Your task to perform on an android device: open app "Mercado Libre" (install if not already installed), go to login, and select forgot password Image 0: 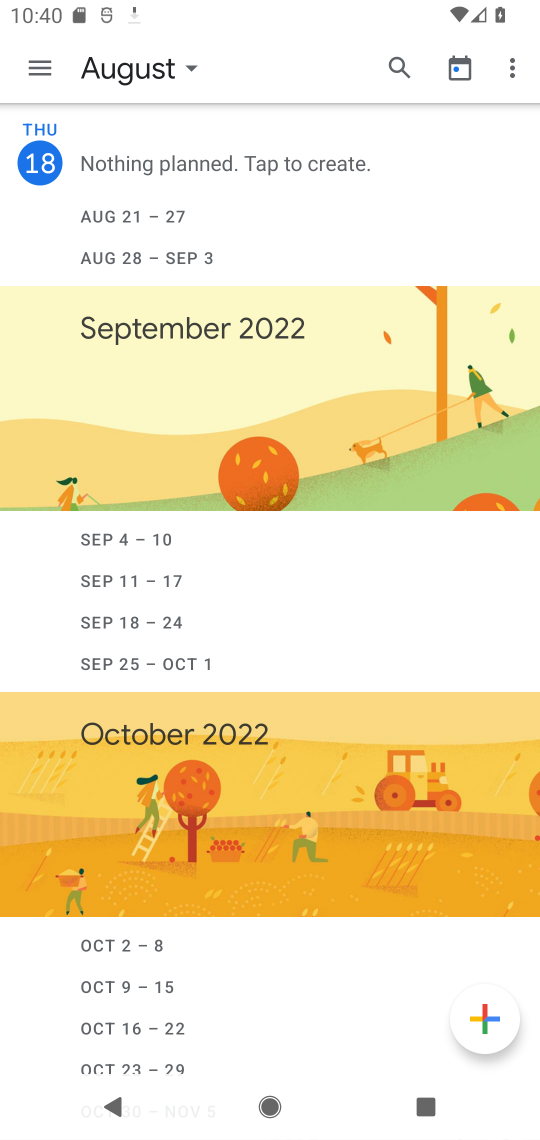
Step 0: press home button
Your task to perform on an android device: open app "Mercado Libre" (install if not already installed), go to login, and select forgot password Image 1: 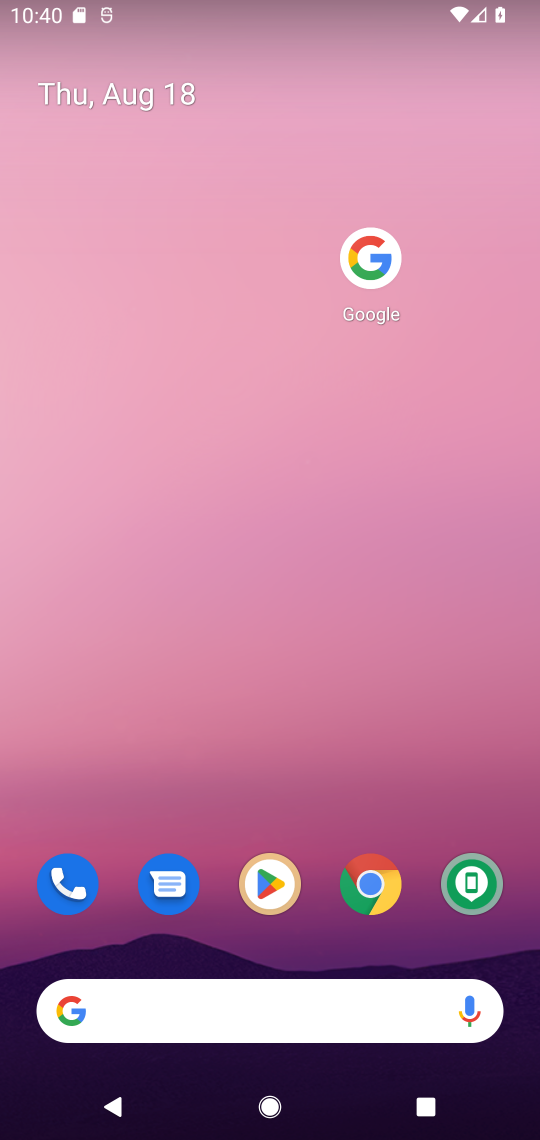
Step 1: click (266, 878)
Your task to perform on an android device: open app "Mercado Libre" (install if not already installed), go to login, and select forgot password Image 2: 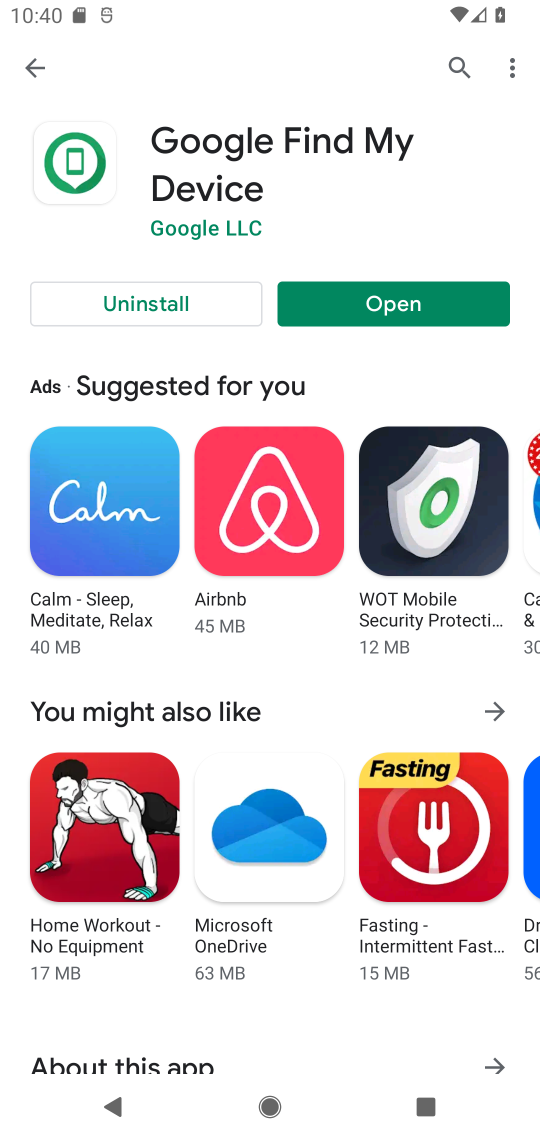
Step 2: click (464, 80)
Your task to perform on an android device: open app "Mercado Libre" (install if not already installed), go to login, and select forgot password Image 3: 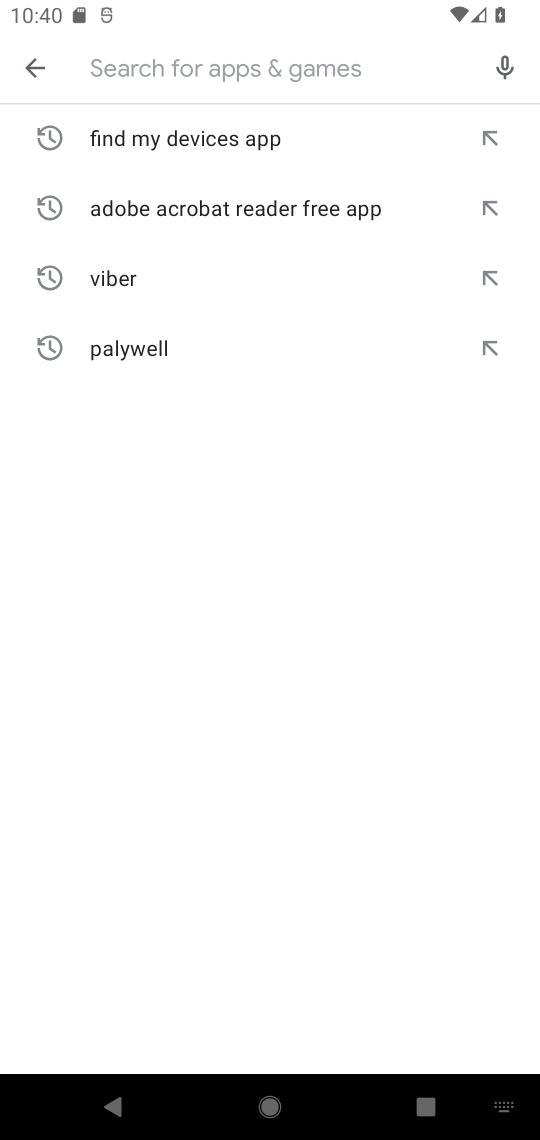
Step 3: type "mercado"
Your task to perform on an android device: open app "Mercado Libre" (install if not already installed), go to login, and select forgot password Image 4: 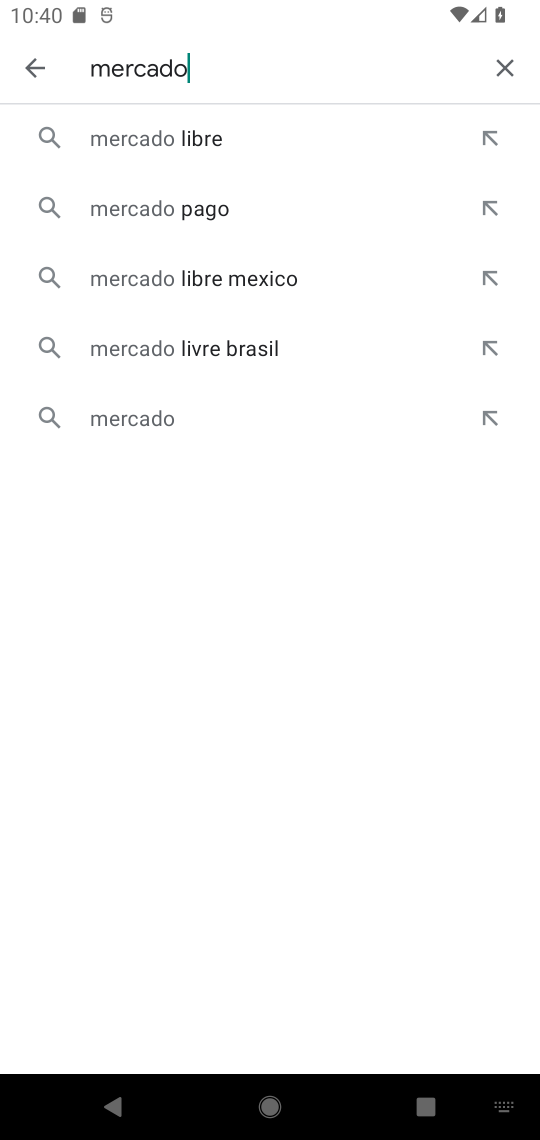
Step 4: click (257, 143)
Your task to perform on an android device: open app "Mercado Libre" (install if not already installed), go to login, and select forgot password Image 5: 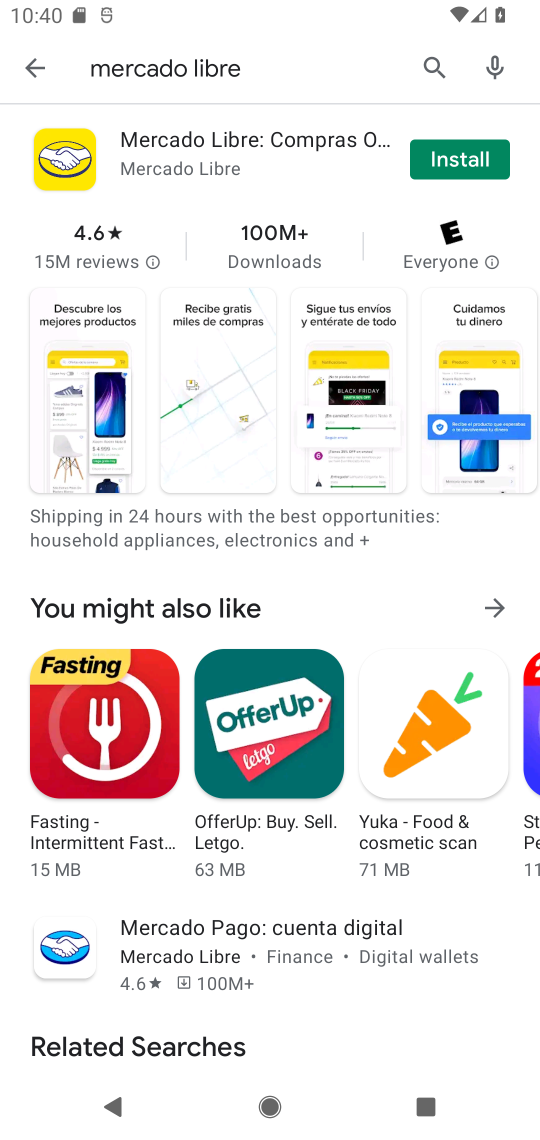
Step 5: click (446, 143)
Your task to perform on an android device: open app "Mercado Libre" (install if not already installed), go to login, and select forgot password Image 6: 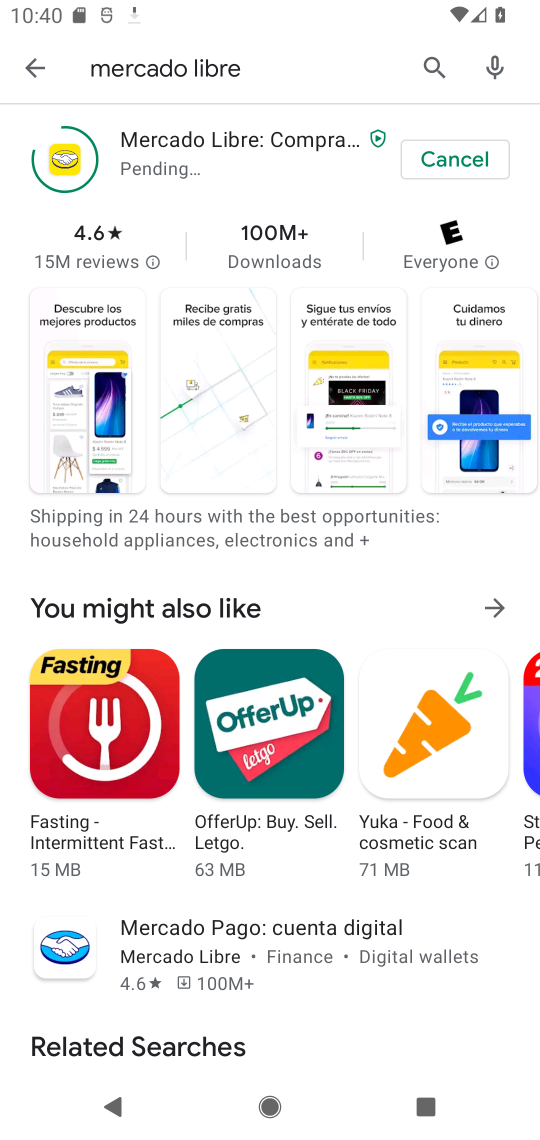
Step 6: task complete